Your task to perform on an android device: turn on location history Image 0: 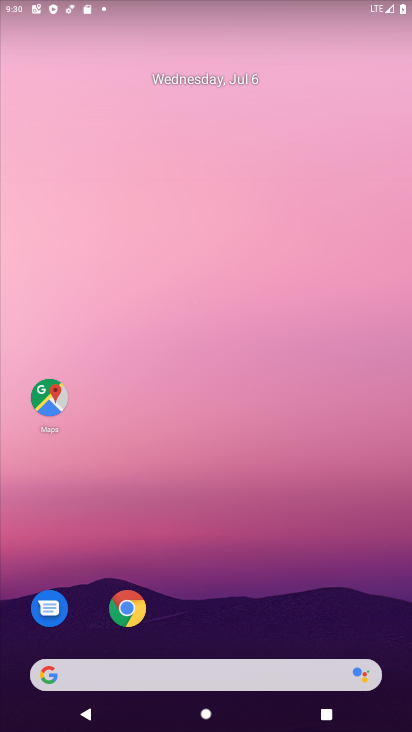
Step 0: click (41, 396)
Your task to perform on an android device: turn on location history Image 1: 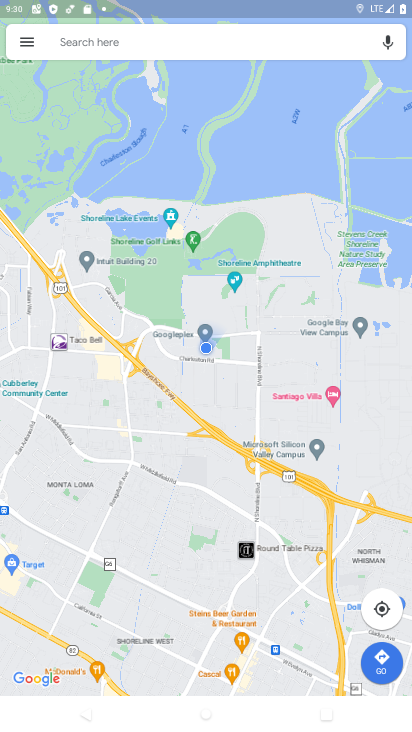
Step 1: click (23, 38)
Your task to perform on an android device: turn on location history Image 2: 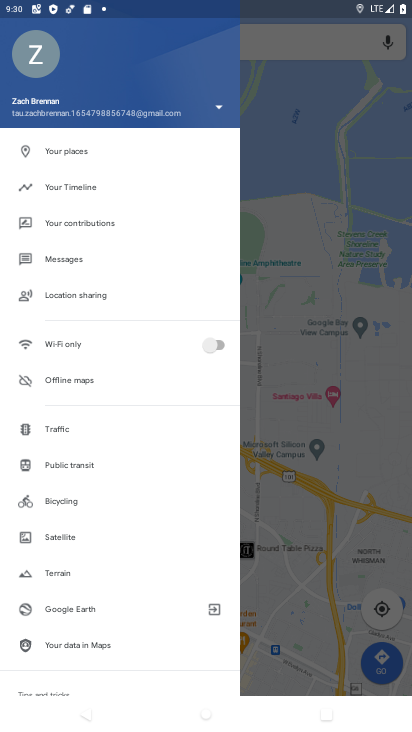
Step 2: click (77, 188)
Your task to perform on an android device: turn on location history Image 3: 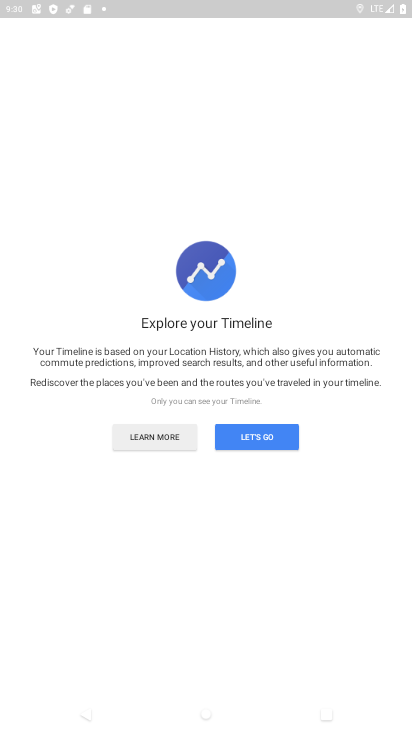
Step 3: click (235, 436)
Your task to perform on an android device: turn on location history Image 4: 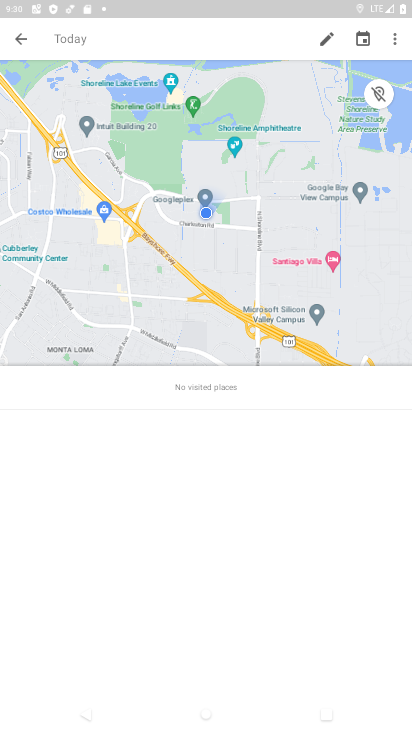
Step 4: click (395, 32)
Your task to perform on an android device: turn on location history Image 5: 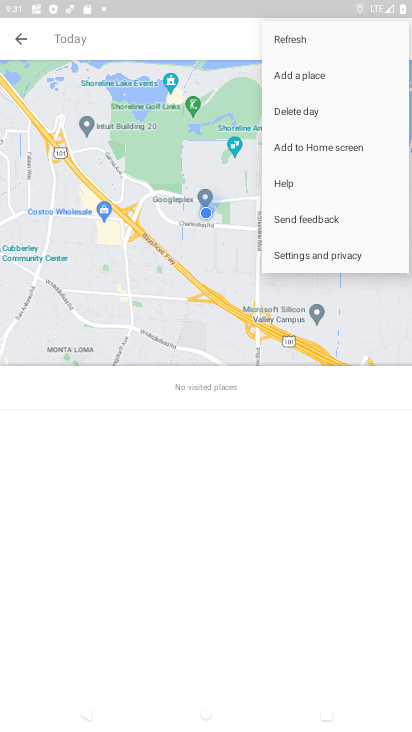
Step 5: click (297, 254)
Your task to perform on an android device: turn on location history Image 6: 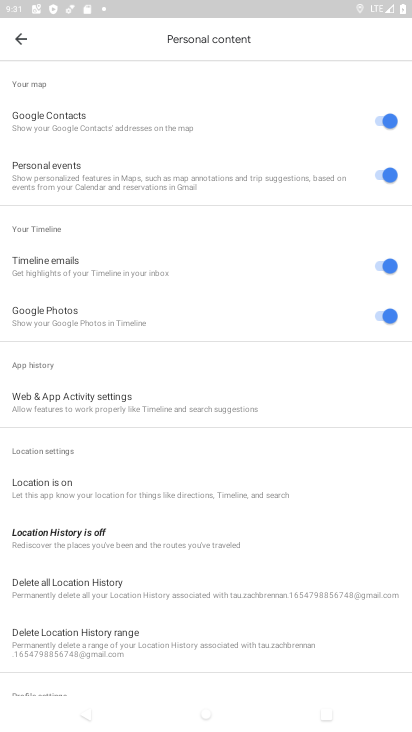
Step 6: click (73, 534)
Your task to perform on an android device: turn on location history Image 7: 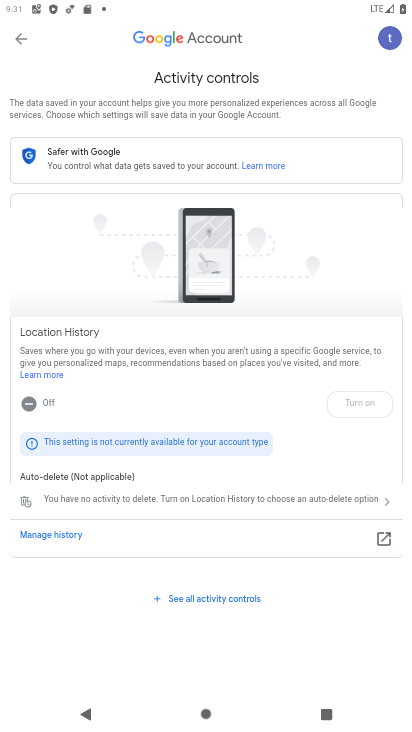
Step 7: task complete